Your task to perform on an android device: Set the phone to "Do not disturb". Image 0: 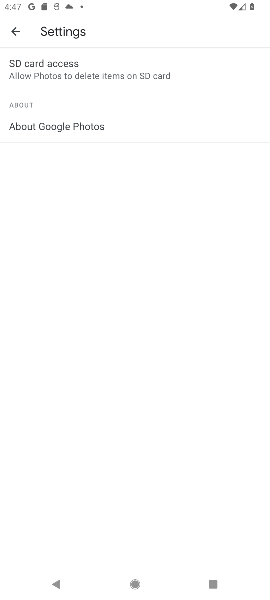
Step 0: click (18, 32)
Your task to perform on an android device: Set the phone to "Do not disturb". Image 1: 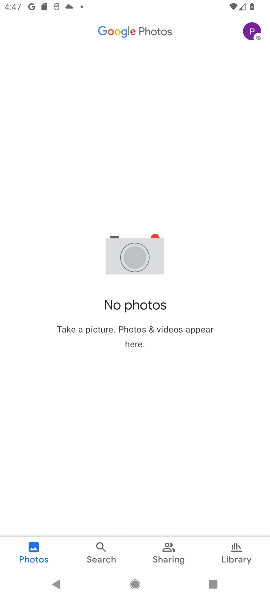
Step 1: press back button
Your task to perform on an android device: Set the phone to "Do not disturb". Image 2: 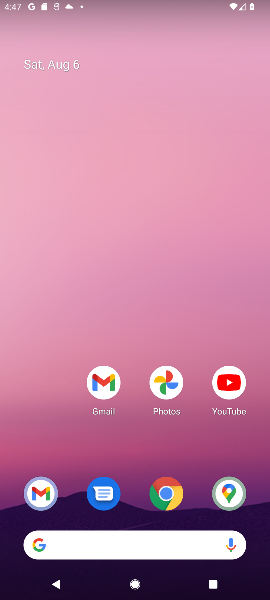
Step 2: drag from (168, 451) to (132, 26)
Your task to perform on an android device: Set the phone to "Do not disturb". Image 3: 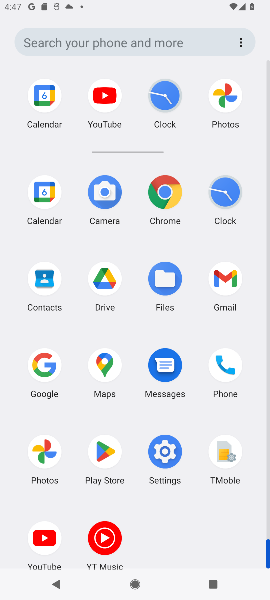
Step 3: click (160, 451)
Your task to perform on an android device: Set the phone to "Do not disturb". Image 4: 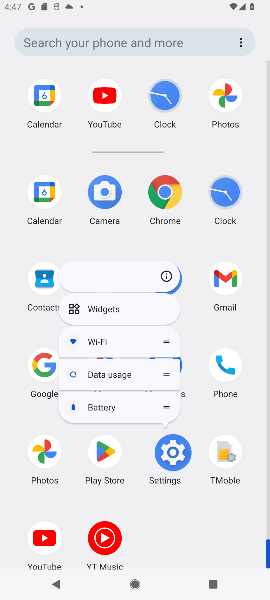
Step 4: click (168, 452)
Your task to perform on an android device: Set the phone to "Do not disturb". Image 5: 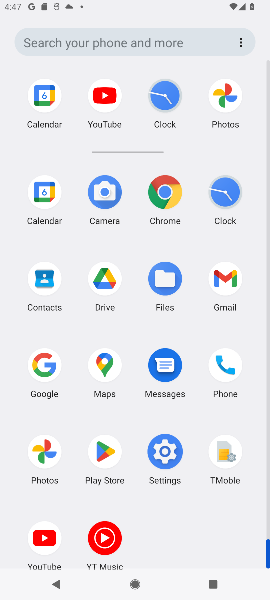
Step 5: click (165, 458)
Your task to perform on an android device: Set the phone to "Do not disturb". Image 6: 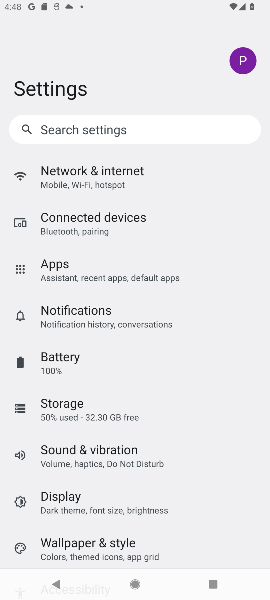
Step 6: click (75, 453)
Your task to perform on an android device: Set the phone to "Do not disturb". Image 7: 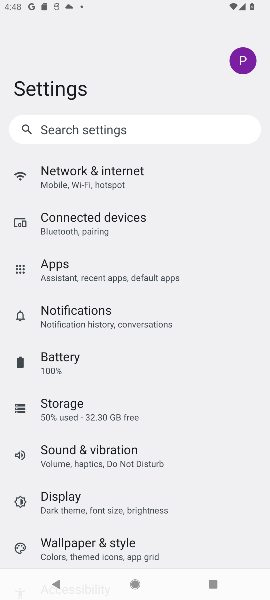
Step 7: click (75, 453)
Your task to perform on an android device: Set the phone to "Do not disturb". Image 8: 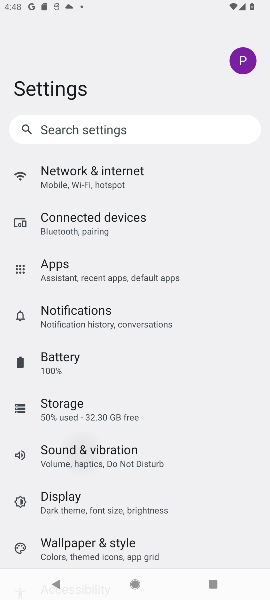
Step 8: click (77, 452)
Your task to perform on an android device: Set the phone to "Do not disturb". Image 9: 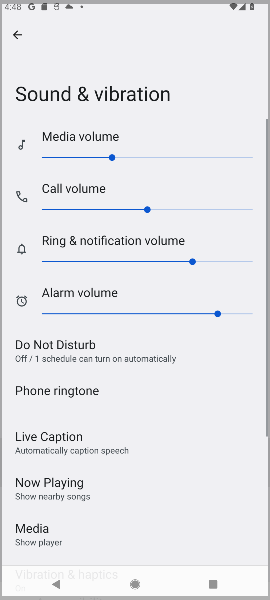
Step 9: click (77, 452)
Your task to perform on an android device: Set the phone to "Do not disturb". Image 10: 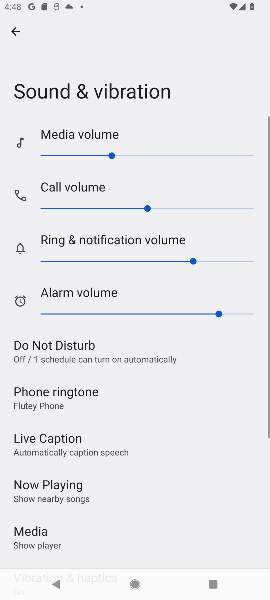
Step 10: click (48, 353)
Your task to perform on an android device: Set the phone to "Do not disturb". Image 11: 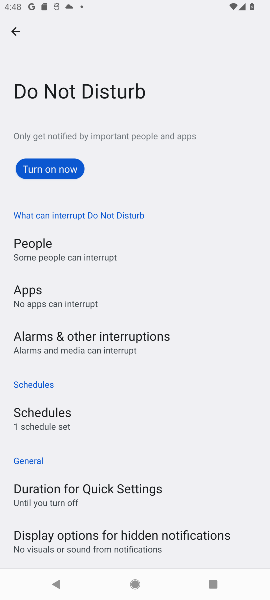
Step 11: click (39, 166)
Your task to perform on an android device: Set the phone to "Do not disturb". Image 12: 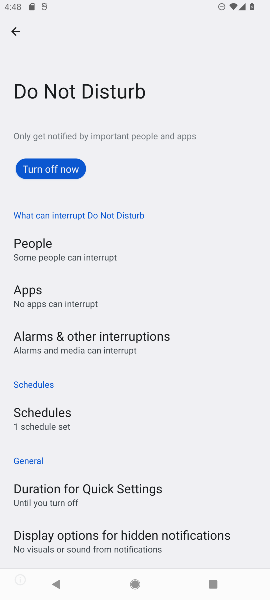
Step 12: task complete